Your task to perform on an android device: turn notification dots off Image 0: 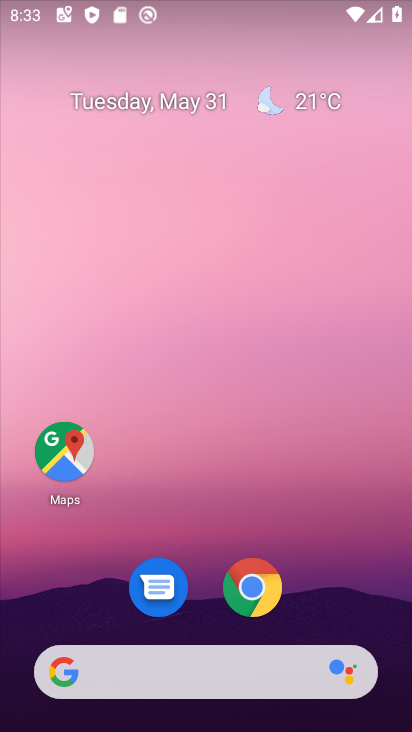
Step 0: drag from (206, 607) to (239, 118)
Your task to perform on an android device: turn notification dots off Image 1: 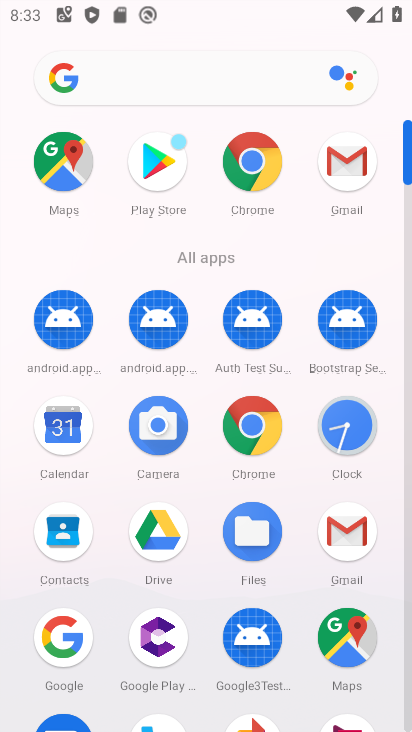
Step 1: drag from (218, 589) to (261, 276)
Your task to perform on an android device: turn notification dots off Image 2: 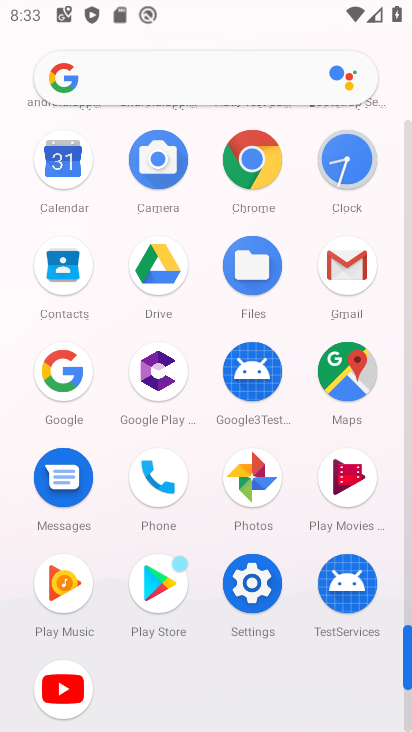
Step 2: click (249, 597)
Your task to perform on an android device: turn notification dots off Image 3: 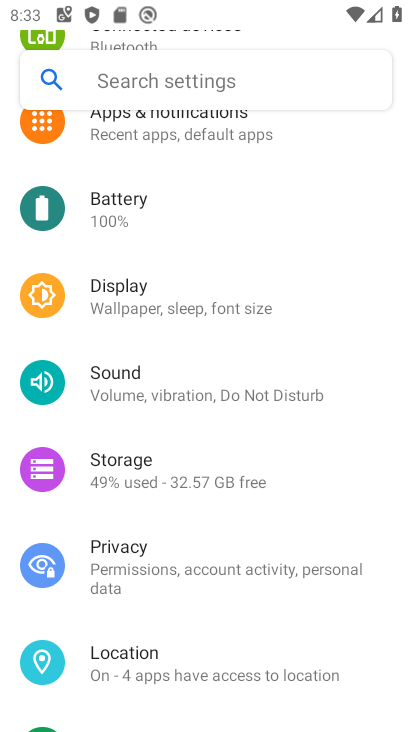
Step 3: click (98, 129)
Your task to perform on an android device: turn notification dots off Image 4: 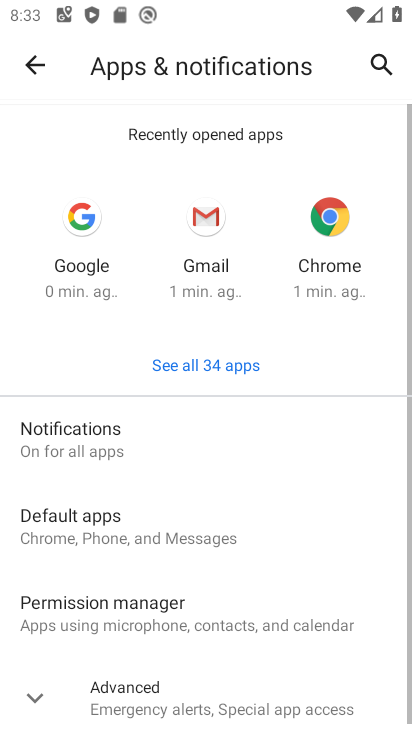
Step 4: click (166, 426)
Your task to perform on an android device: turn notification dots off Image 5: 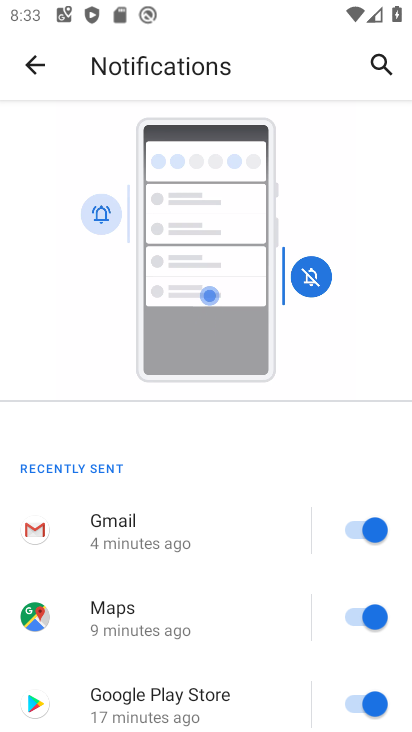
Step 5: drag from (168, 666) to (243, 102)
Your task to perform on an android device: turn notification dots off Image 6: 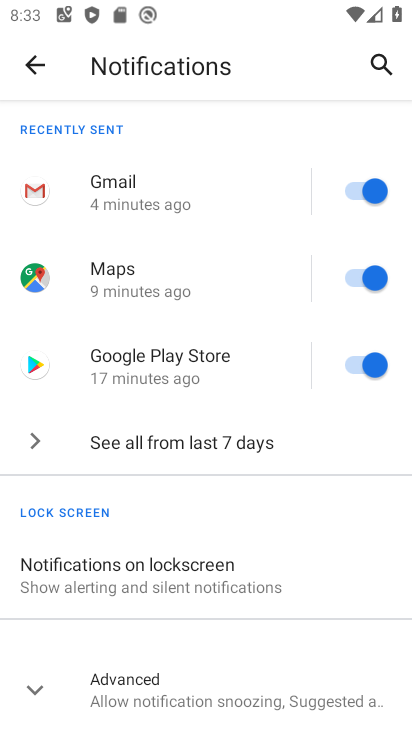
Step 6: click (144, 694)
Your task to perform on an android device: turn notification dots off Image 7: 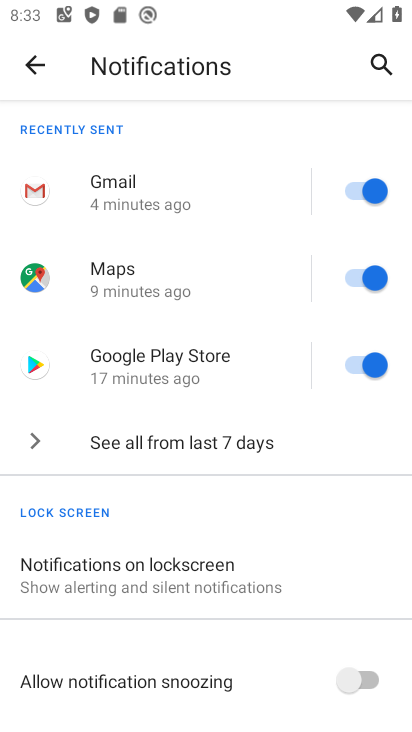
Step 7: drag from (144, 694) to (208, 114)
Your task to perform on an android device: turn notification dots off Image 8: 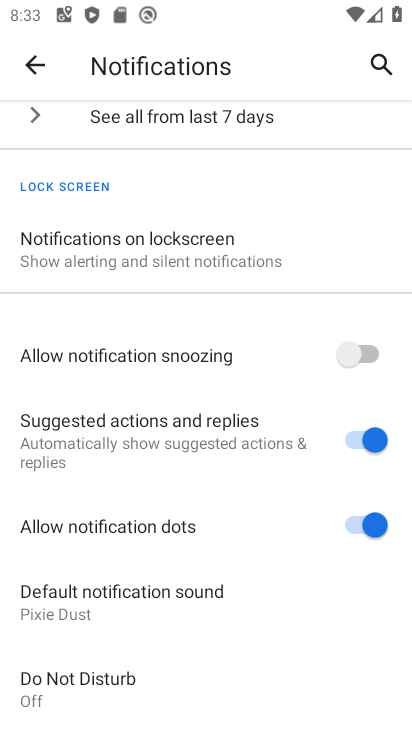
Step 8: click (378, 527)
Your task to perform on an android device: turn notification dots off Image 9: 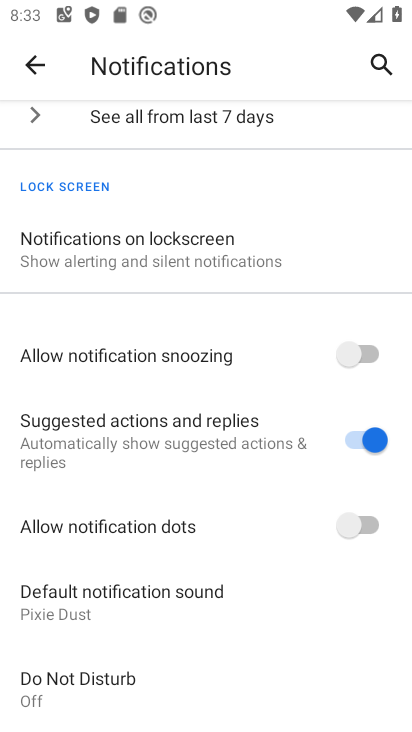
Step 9: task complete